Your task to perform on an android device: Open the map Image 0: 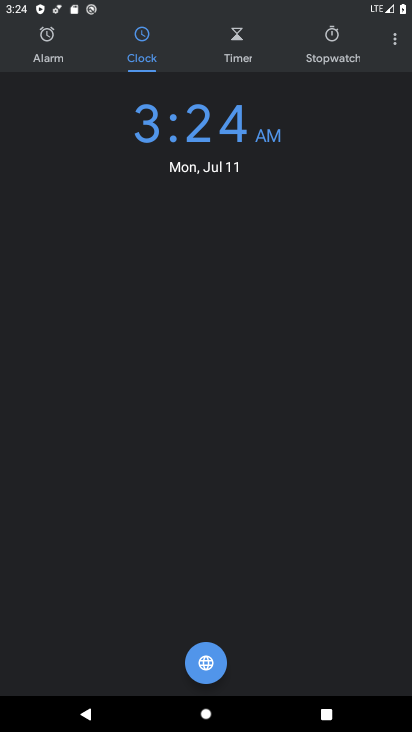
Step 0: press home button
Your task to perform on an android device: Open the map Image 1: 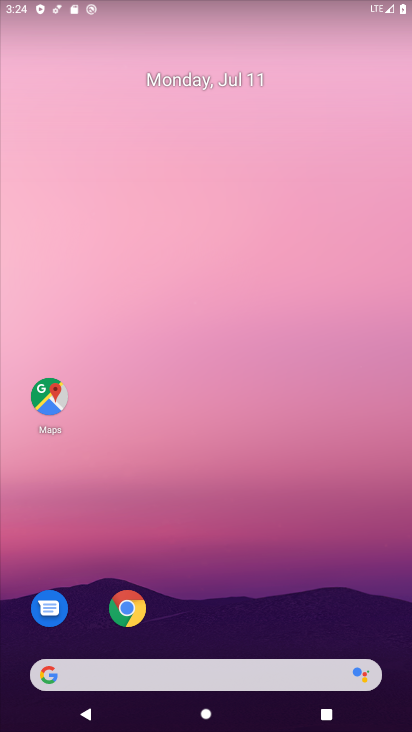
Step 1: click (49, 395)
Your task to perform on an android device: Open the map Image 2: 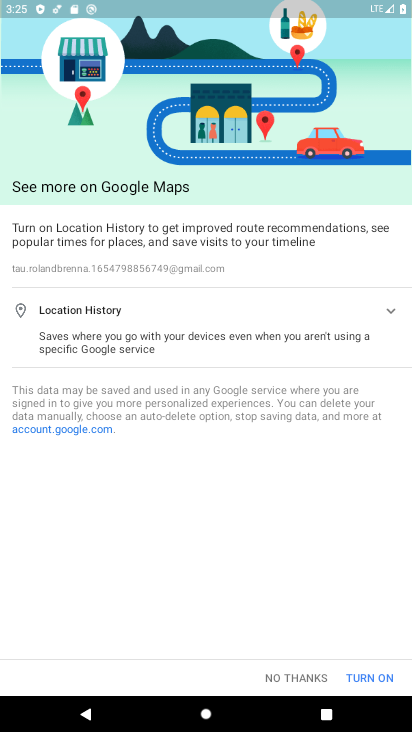
Step 2: click (300, 671)
Your task to perform on an android device: Open the map Image 3: 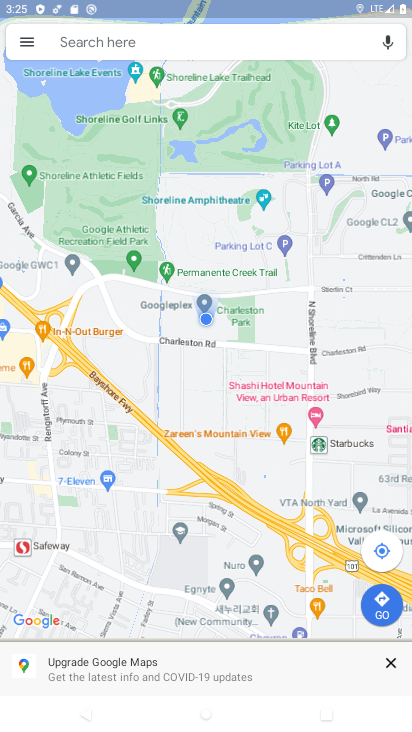
Step 3: task complete